Your task to perform on an android device: Search for pizza restaurants on Maps Image 0: 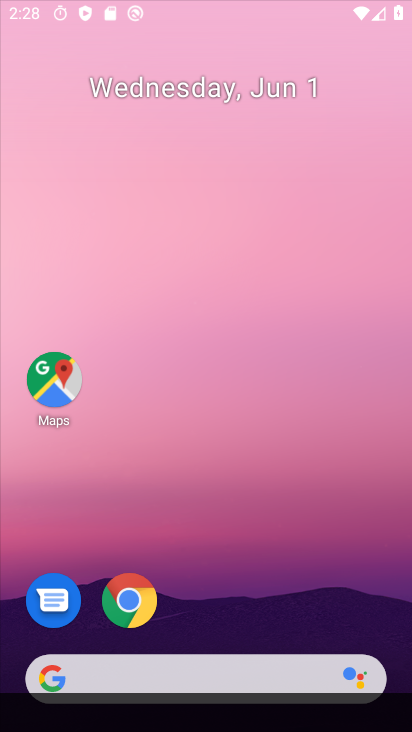
Step 0: drag from (313, 717) to (218, 226)
Your task to perform on an android device: Search for pizza restaurants on Maps Image 1: 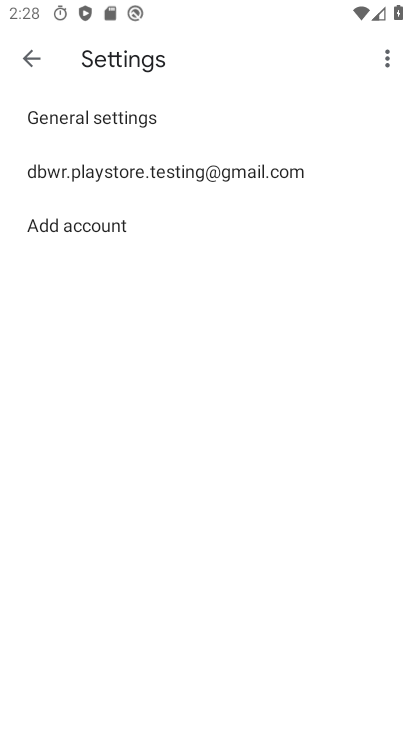
Step 1: click (32, 50)
Your task to perform on an android device: Search for pizza restaurants on Maps Image 2: 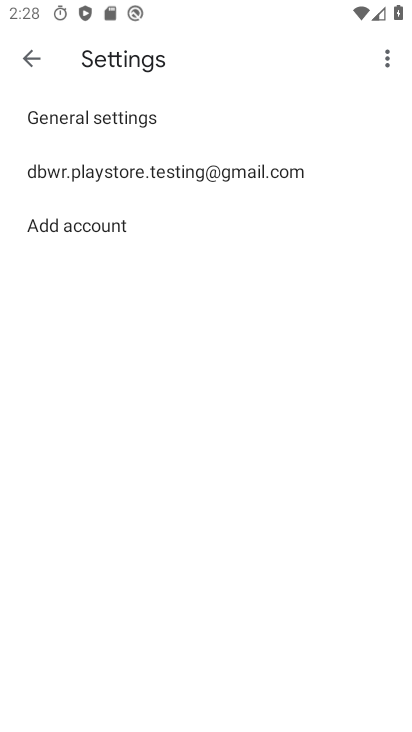
Step 2: click (32, 50)
Your task to perform on an android device: Search for pizza restaurants on Maps Image 3: 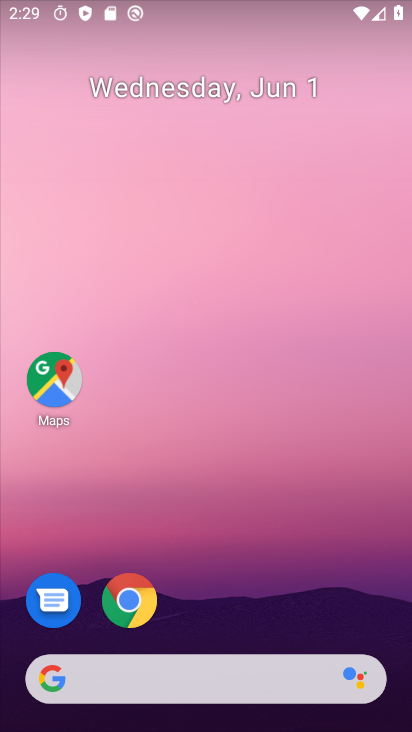
Step 3: drag from (238, 682) to (186, 258)
Your task to perform on an android device: Search for pizza restaurants on Maps Image 4: 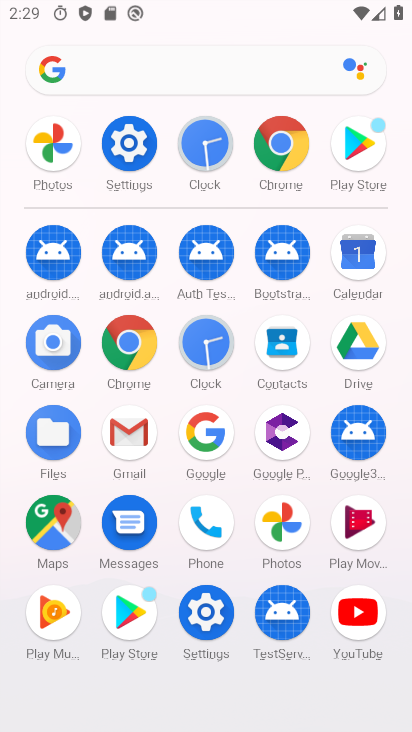
Step 4: click (52, 513)
Your task to perform on an android device: Search for pizza restaurants on Maps Image 5: 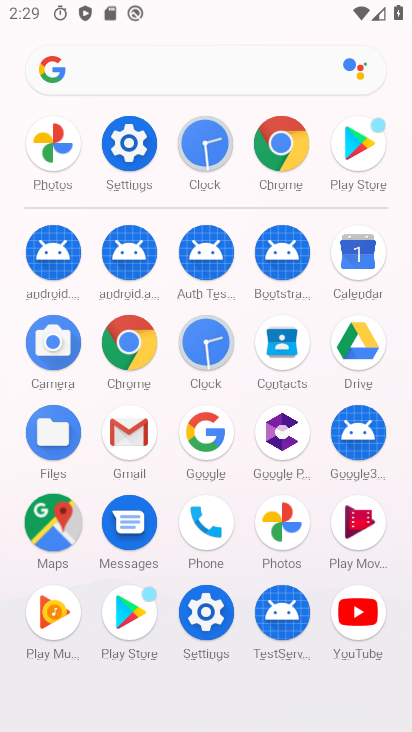
Step 5: click (51, 513)
Your task to perform on an android device: Search for pizza restaurants on Maps Image 6: 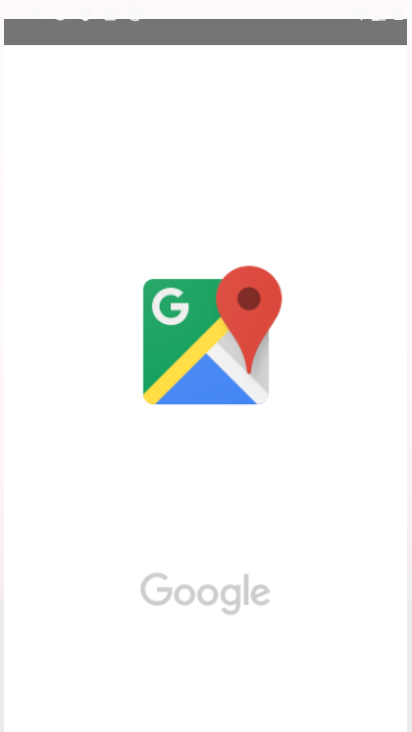
Step 6: click (50, 512)
Your task to perform on an android device: Search for pizza restaurants on Maps Image 7: 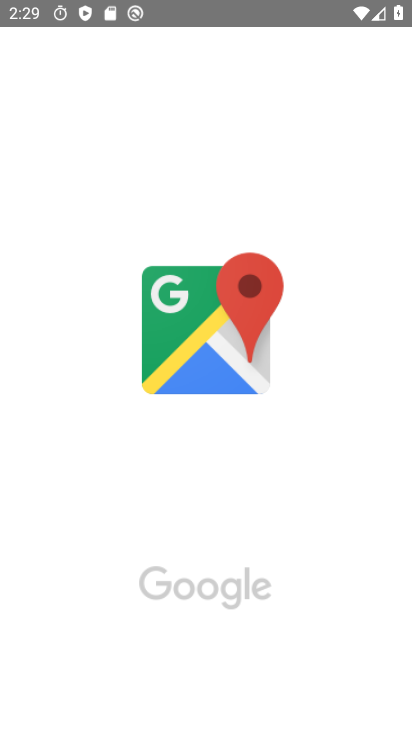
Step 7: click (50, 512)
Your task to perform on an android device: Search for pizza restaurants on Maps Image 8: 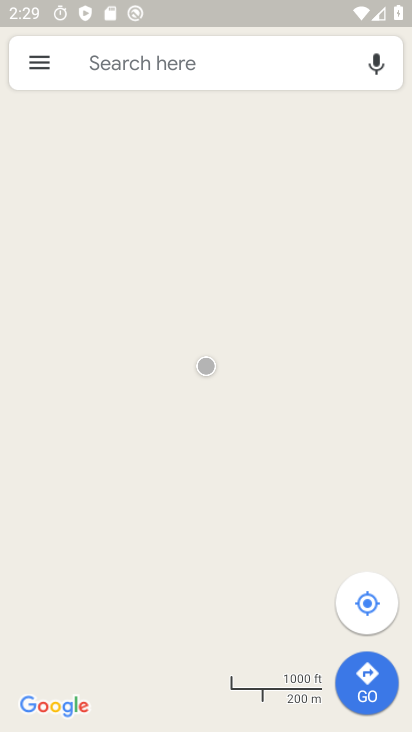
Step 8: click (95, 57)
Your task to perform on an android device: Search for pizza restaurants on Maps Image 9: 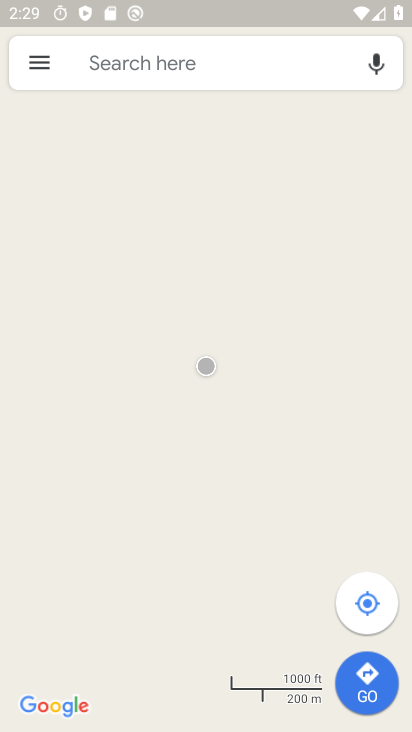
Step 9: click (95, 56)
Your task to perform on an android device: Search for pizza restaurants on Maps Image 10: 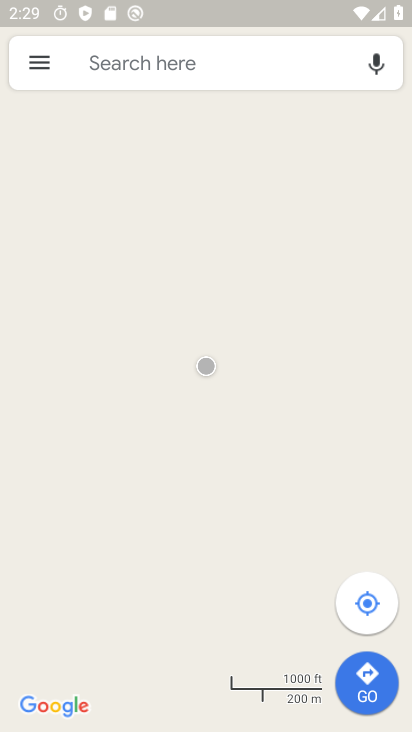
Step 10: click (95, 56)
Your task to perform on an android device: Search for pizza restaurants on Maps Image 11: 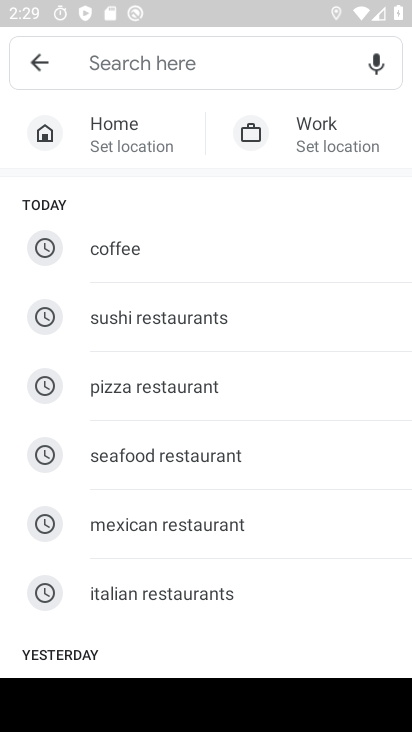
Step 11: type "pizza restaurants"
Your task to perform on an android device: Search for pizza restaurants on Maps Image 12: 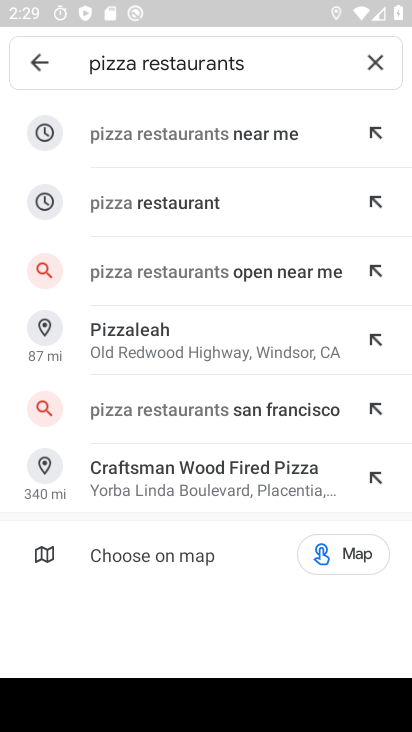
Step 12: click (176, 77)
Your task to perform on an android device: Search for pizza restaurants on Maps Image 13: 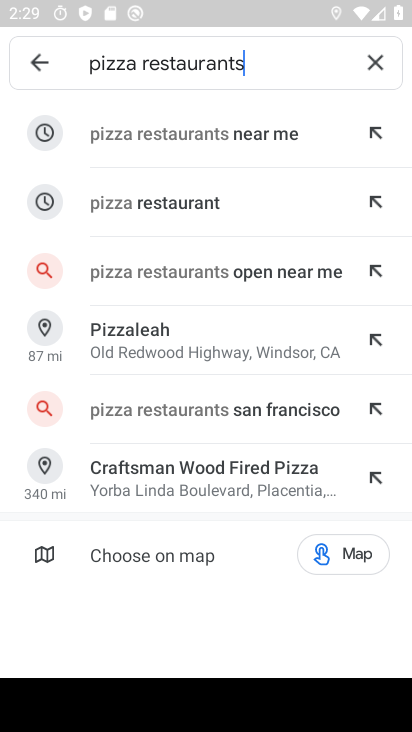
Step 13: click (176, 76)
Your task to perform on an android device: Search for pizza restaurants on Maps Image 14: 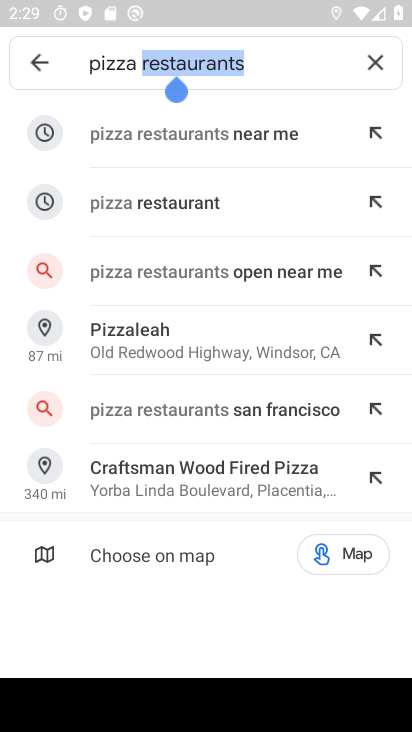
Step 14: click (176, 76)
Your task to perform on an android device: Search for pizza restaurants on Maps Image 15: 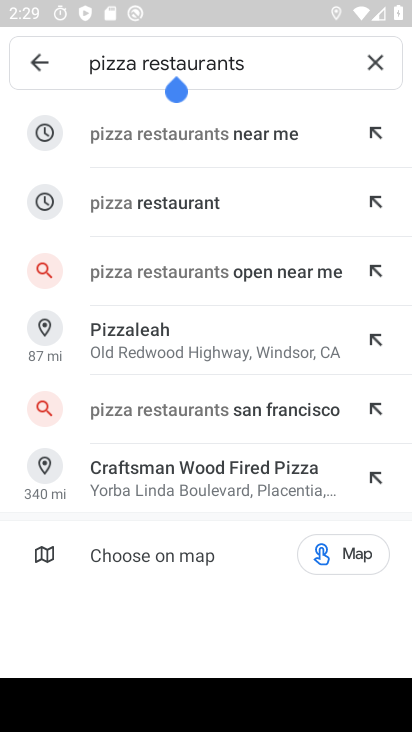
Step 15: click (145, 195)
Your task to perform on an android device: Search for pizza restaurants on Maps Image 16: 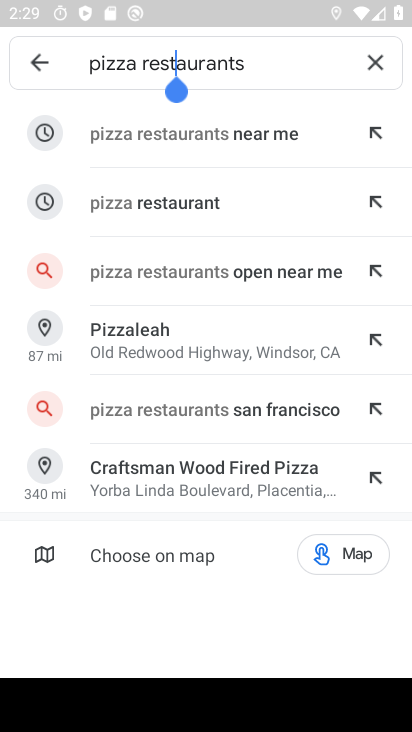
Step 16: click (145, 195)
Your task to perform on an android device: Search for pizza restaurants on Maps Image 17: 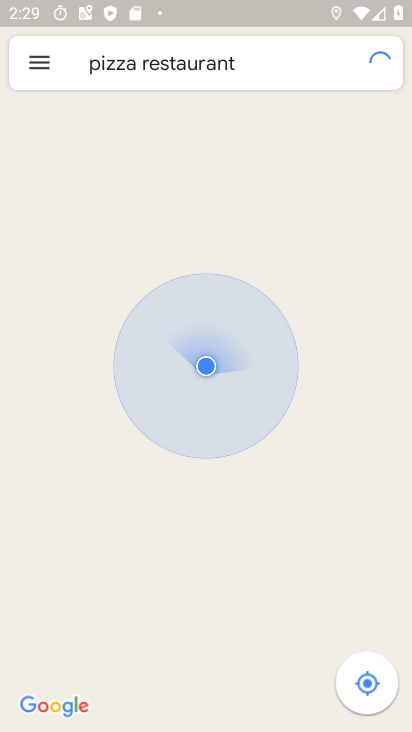
Step 17: click (369, 204)
Your task to perform on an android device: Search for pizza restaurants on Maps Image 18: 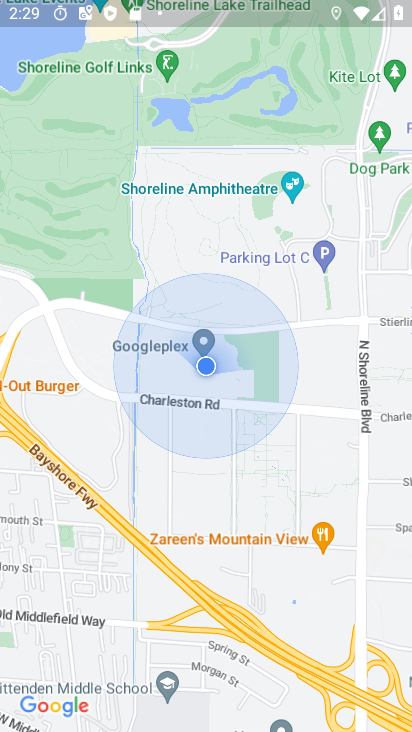
Step 18: task complete